Your task to perform on an android device: Open accessibility settings Image 0: 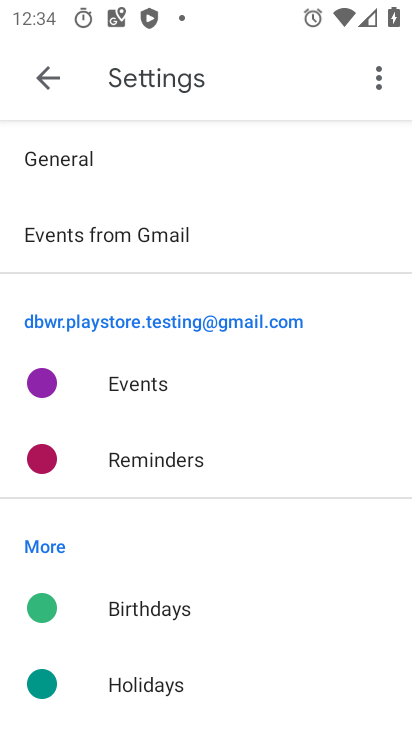
Step 0: press home button
Your task to perform on an android device: Open accessibility settings Image 1: 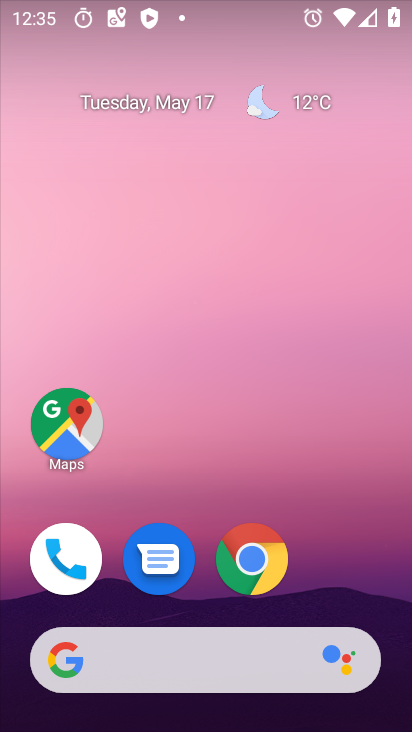
Step 1: drag from (350, 550) to (299, 36)
Your task to perform on an android device: Open accessibility settings Image 2: 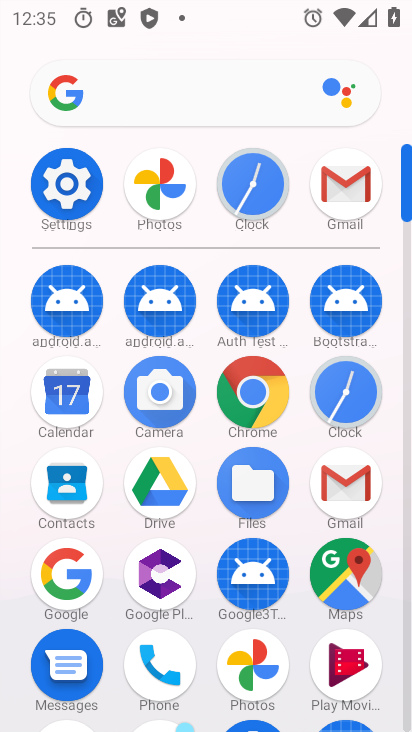
Step 2: click (54, 184)
Your task to perform on an android device: Open accessibility settings Image 3: 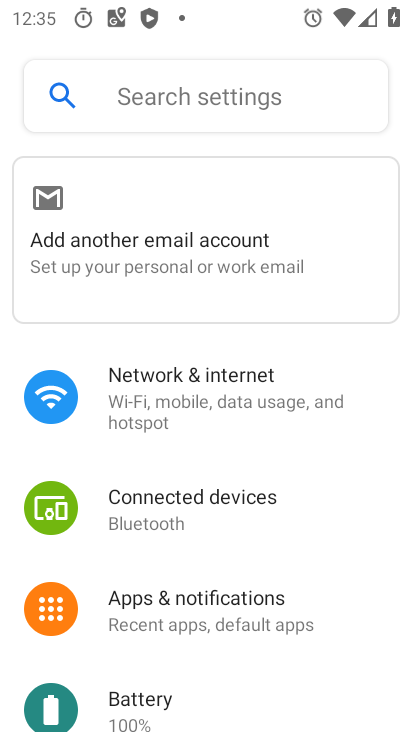
Step 3: drag from (194, 587) to (248, 0)
Your task to perform on an android device: Open accessibility settings Image 4: 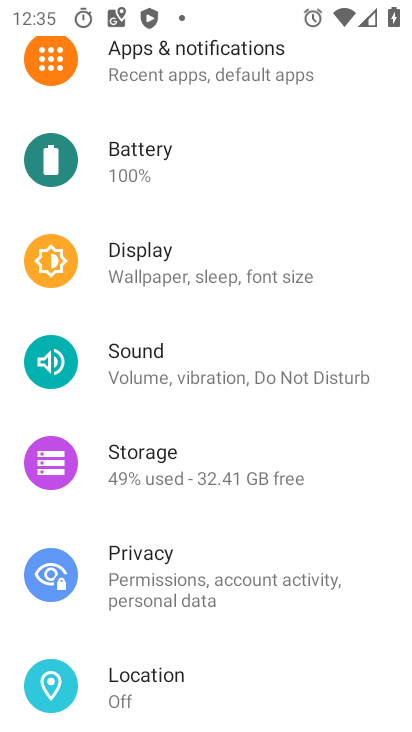
Step 4: drag from (196, 653) to (262, 116)
Your task to perform on an android device: Open accessibility settings Image 5: 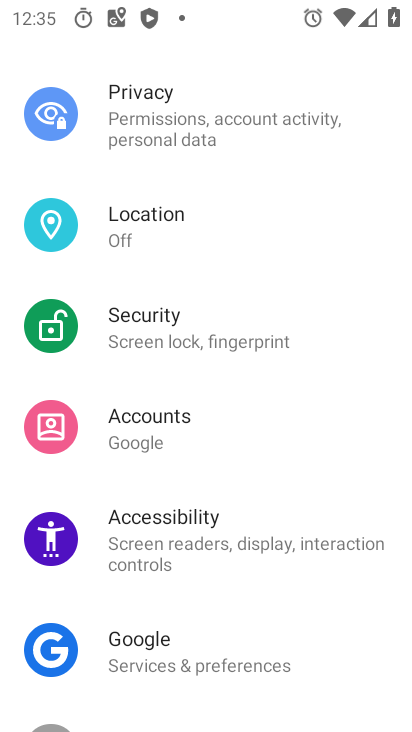
Step 5: click (167, 520)
Your task to perform on an android device: Open accessibility settings Image 6: 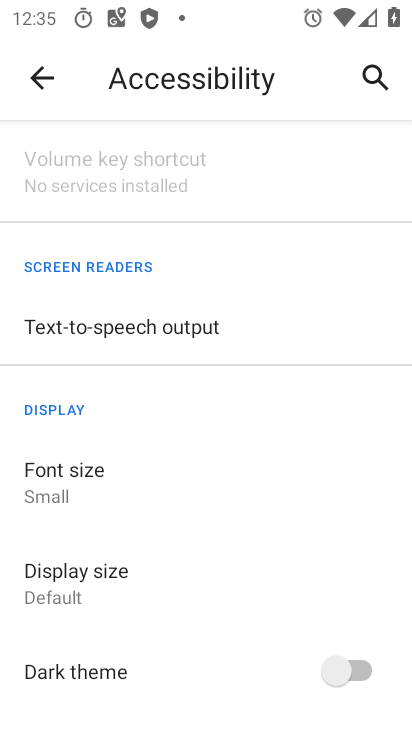
Step 6: task complete